Your task to perform on an android device: Do I have any events this weekend? Image 0: 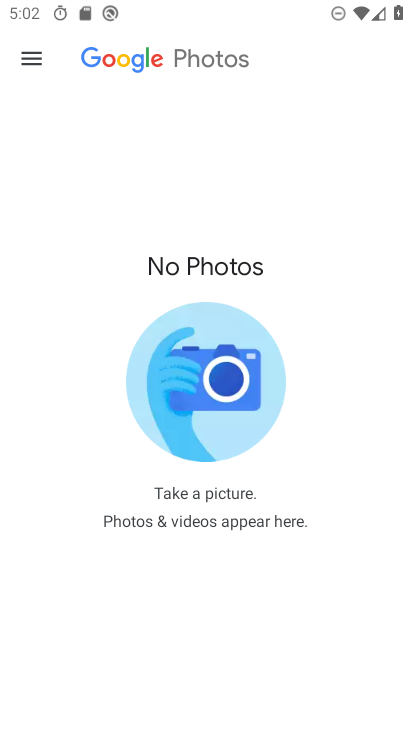
Step 0: drag from (200, 548) to (402, 280)
Your task to perform on an android device: Do I have any events this weekend? Image 1: 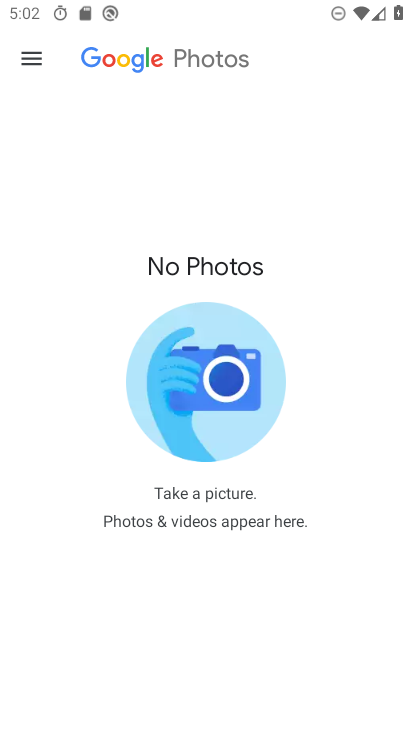
Step 1: press home button
Your task to perform on an android device: Do I have any events this weekend? Image 2: 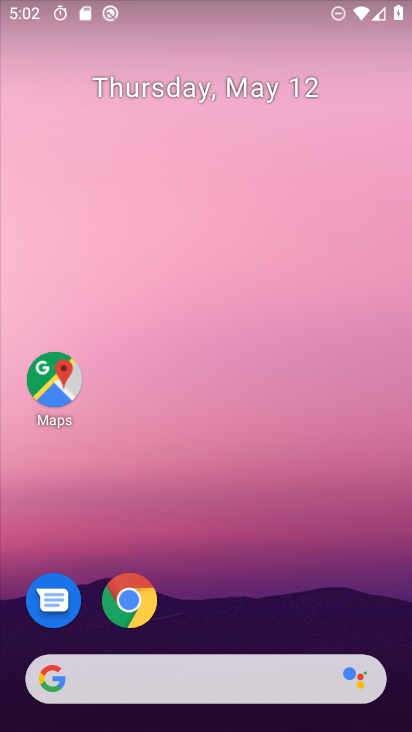
Step 2: drag from (190, 630) to (226, 337)
Your task to perform on an android device: Do I have any events this weekend? Image 3: 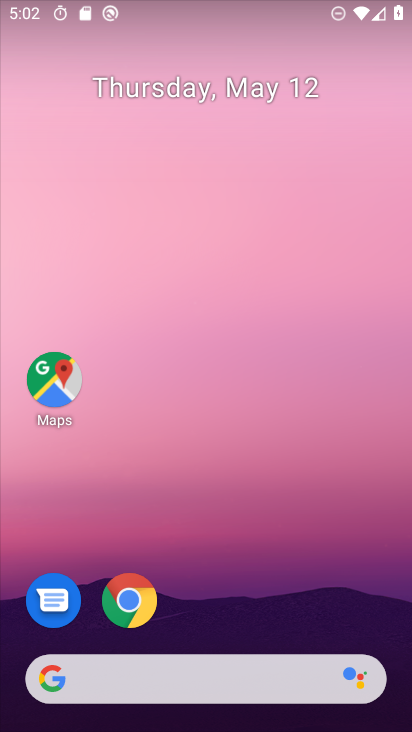
Step 3: drag from (171, 651) to (225, 402)
Your task to perform on an android device: Do I have any events this weekend? Image 4: 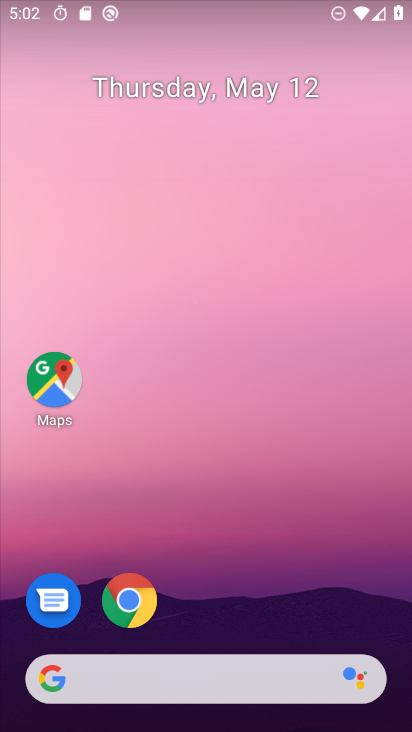
Step 4: drag from (197, 581) to (211, 59)
Your task to perform on an android device: Do I have any events this weekend? Image 5: 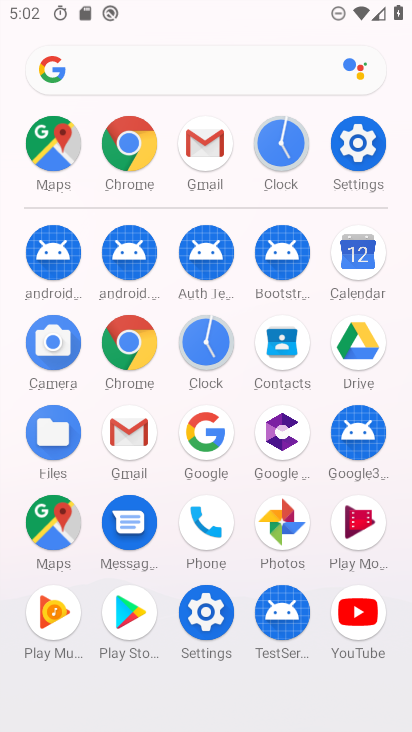
Step 5: click (365, 241)
Your task to perform on an android device: Do I have any events this weekend? Image 6: 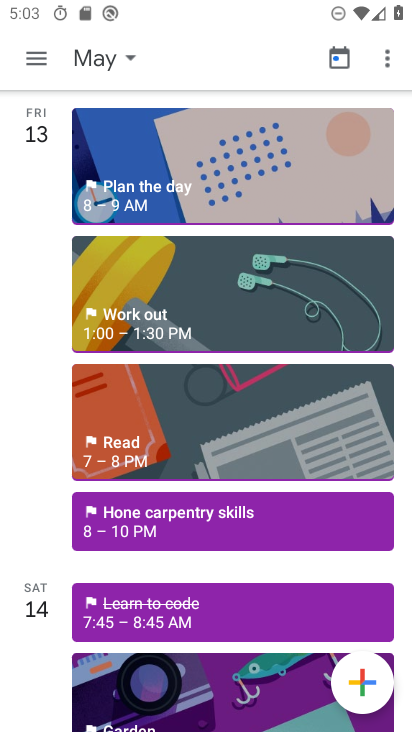
Step 6: click (95, 67)
Your task to perform on an android device: Do I have any events this weekend? Image 7: 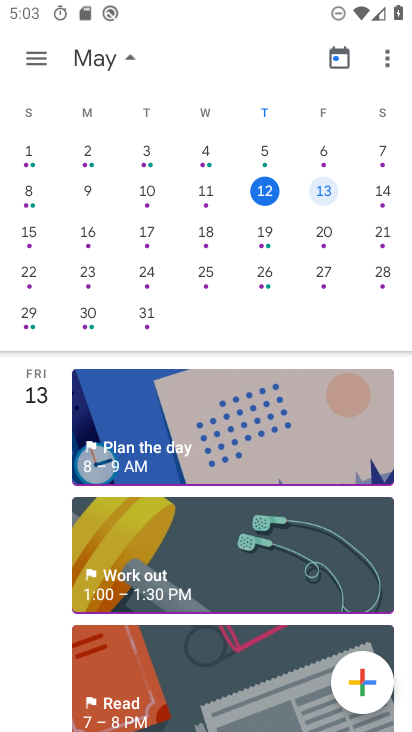
Step 7: click (393, 187)
Your task to perform on an android device: Do I have any events this weekend? Image 8: 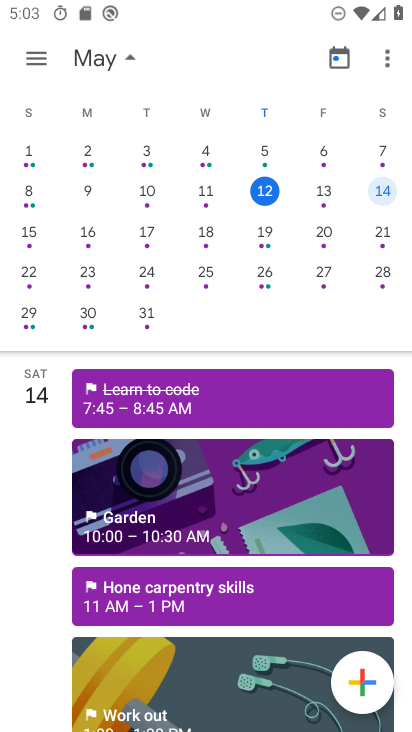
Step 8: task complete